Your task to perform on an android device: Find coffee shops on Maps Image 0: 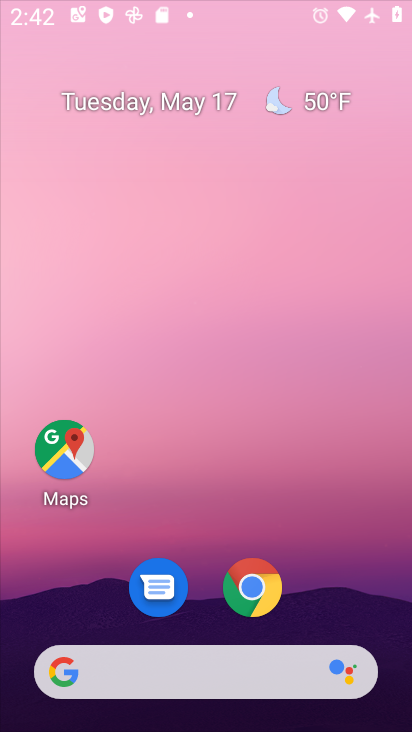
Step 0: drag from (333, 590) to (333, 223)
Your task to perform on an android device: Find coffee shops on Maps Image 1: 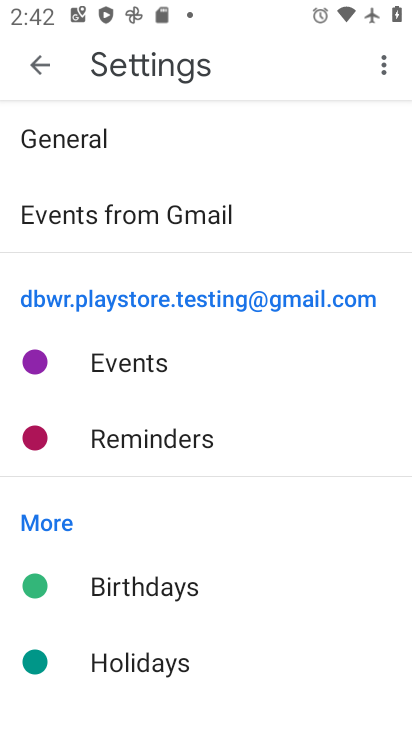
Step 1: press home button
Your task to perform on an android device: Find coffee shops on Maps Image 2: 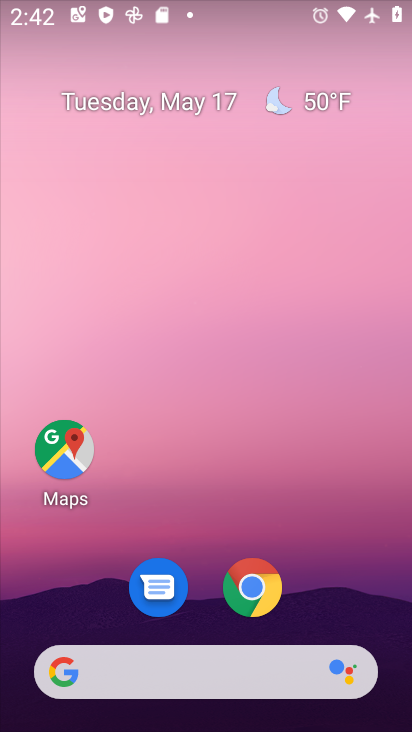
Step 2: drag from (322, 606) to (298, 133)
Your task to perform on an android device: Find coffee shops on Maps Image 3: 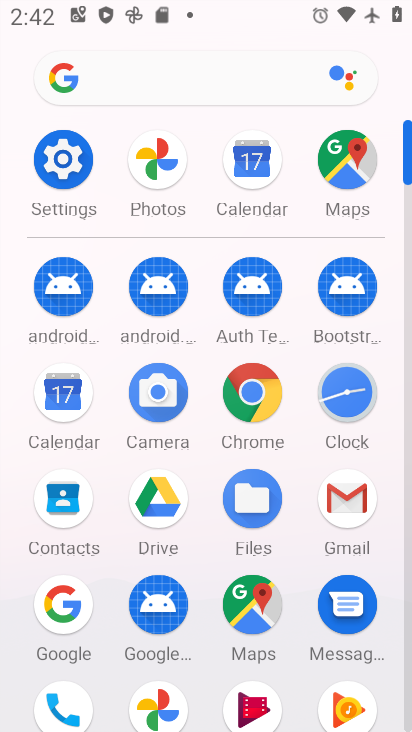
Step 3: click (354, 192)
Your task to perform on an android device: Find coffee shops on Maps Image 4: 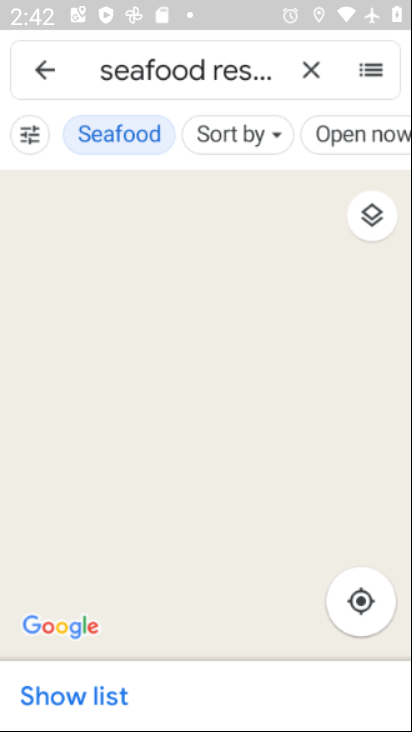
Step 4: click (315, 76)
Your task to perform on an android device: Find coffee shops on Maps Image 5: 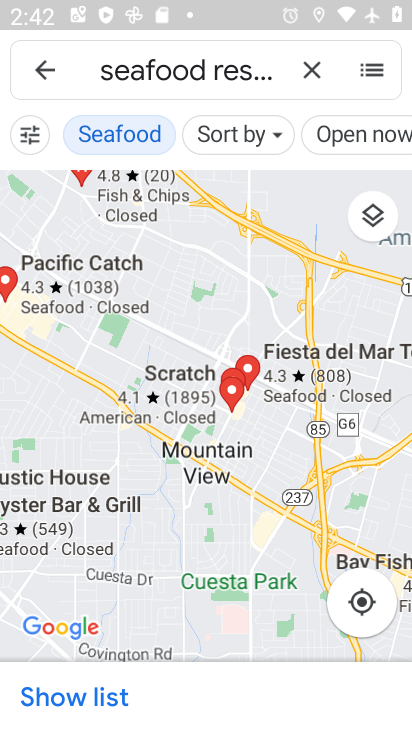
Step 5: click (315, 76)
Your task to perform on an android device: Find coffee shops on Maps Image 6: 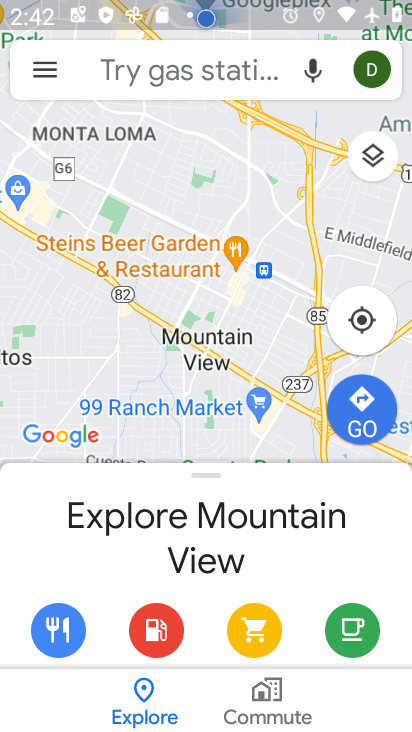
Step 6: click (232, 78)
Your task to perform on an android device: Find coffee shops on Maps Image 7: 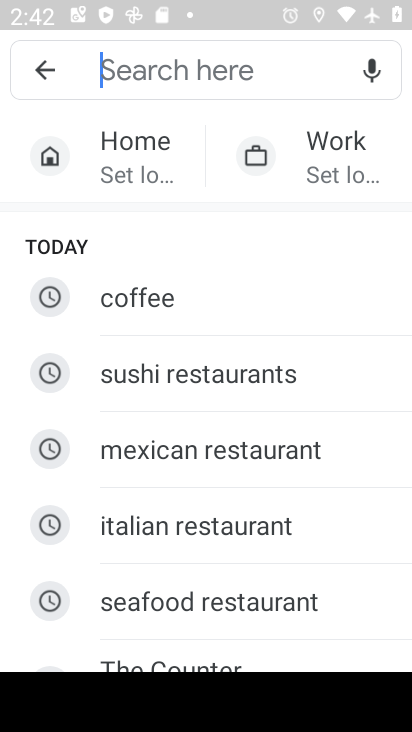
Step 7: click (276, 299)
Your task to perform on an android device: Find coffee shops on Maps Image 8: 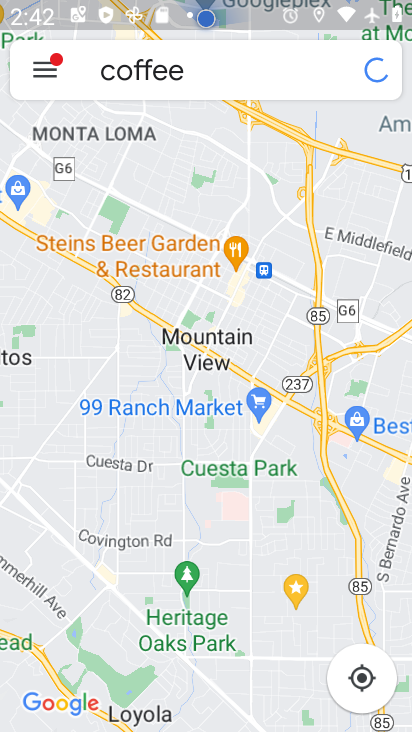
Step 8: task complete